Your task to perform on an android device: change alarm snooze length Image 0: 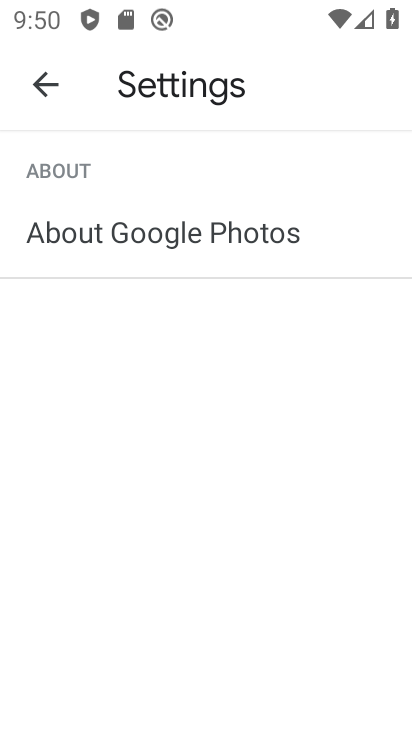
Step 0: press home button
Your task to perform on an android device: change alarm snooze length Image 1: 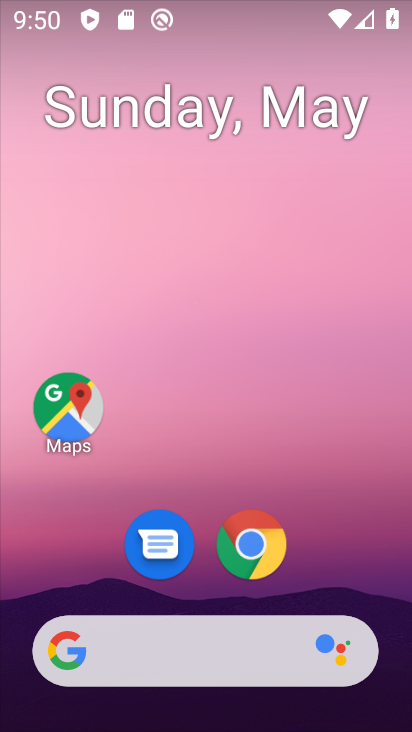
Step 1: drag from (300, 527) to (311, 287)
Your task to perform on an android device: change alarm snooze length Image 2: 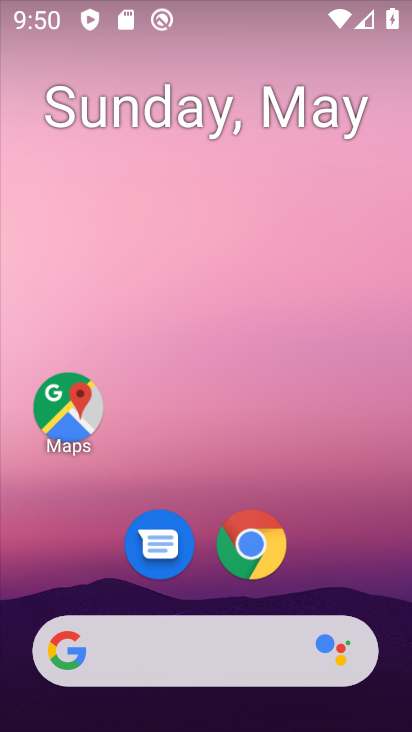
Step 2: drag from (313, 498) to (329, 291)
Your task to perform on an android device: change alarm snooze length Image 3: 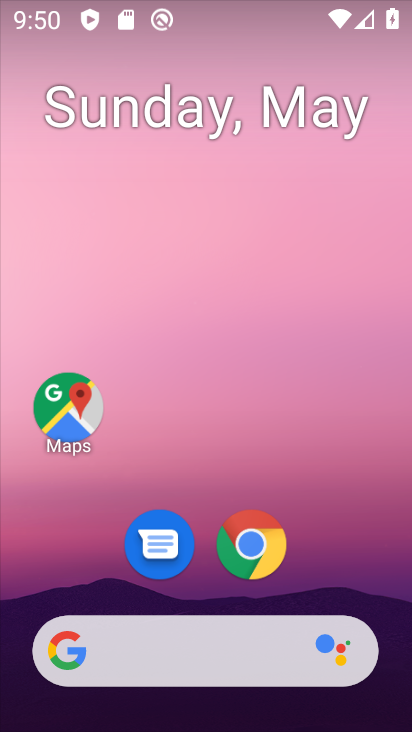
Step 3: drag from (303, 577) to (333, 310)
Your task to perform on an android device: change alarm snooze length Image 4: 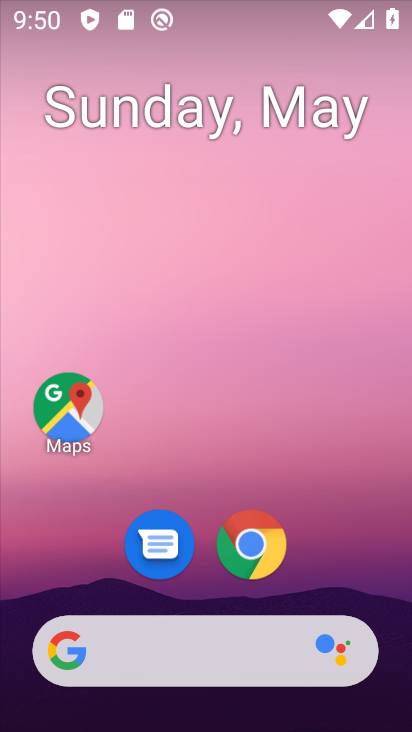
Step 4: drag from (303, 552) to (296, 221)
Your task to perform on an android device: change alarm snooze length Image 5: 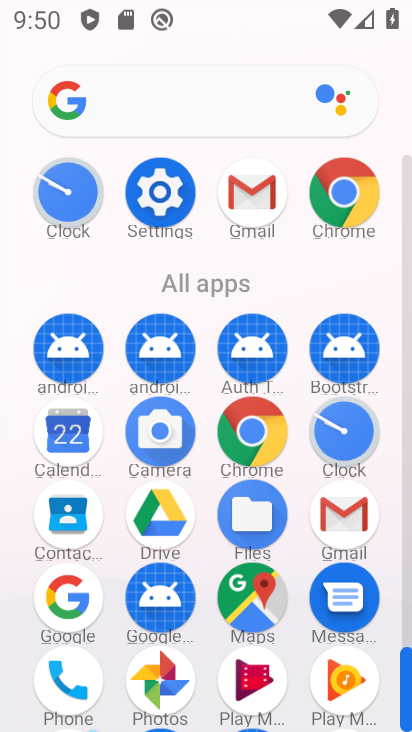
Step 5: click (261, 194)
Your task to perform on an android device: change alarm snooze length Image 6: 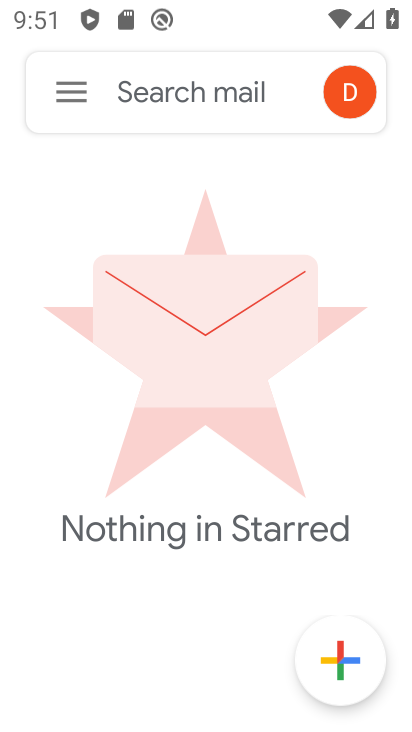
Step 6: press back button
Your task to perform on an android device: change alarm snooze length Image 7: 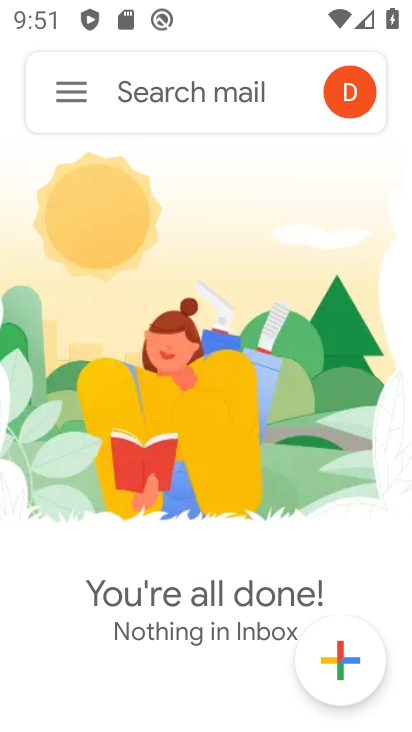
Step 7: press back button
Your task to perform on an android device: change alarm snooze length Image 8: 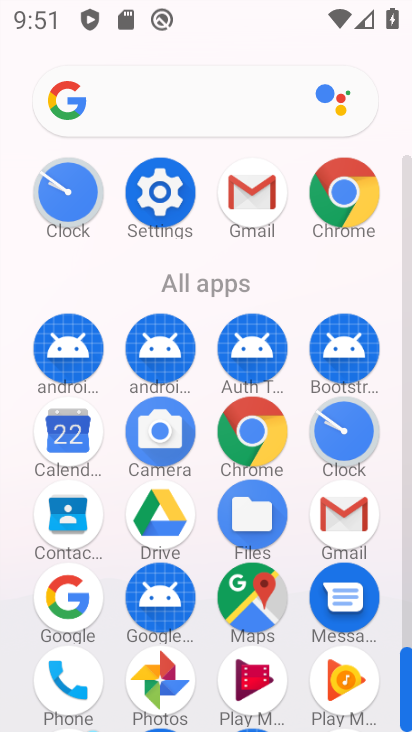
Step 8: click (348, 432)
Your task to perform on an android device: change alarm snooze length Image 9: 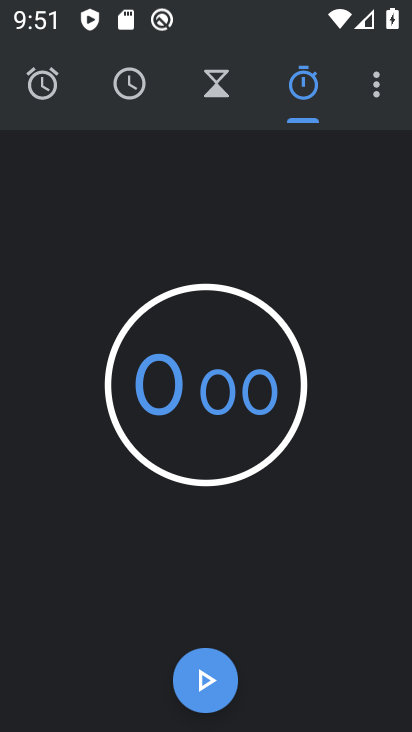
Step 9: click (356, 72)
Your task to perform on an android device: change alarm snooze length Image 10: 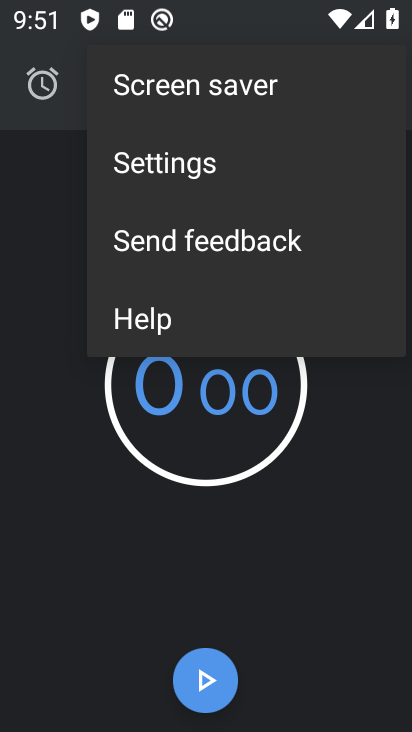
Step 10: click (204, 161)
Your task to perform on an android device: change alarm snooze length Image 11: 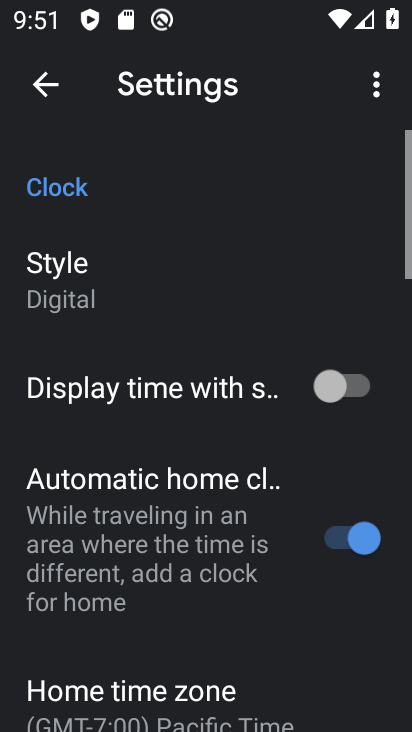
Step 11: drag from (141, 533) to (195, 179)
Your task to perform on an android device: change alarm snooze length Image 12: 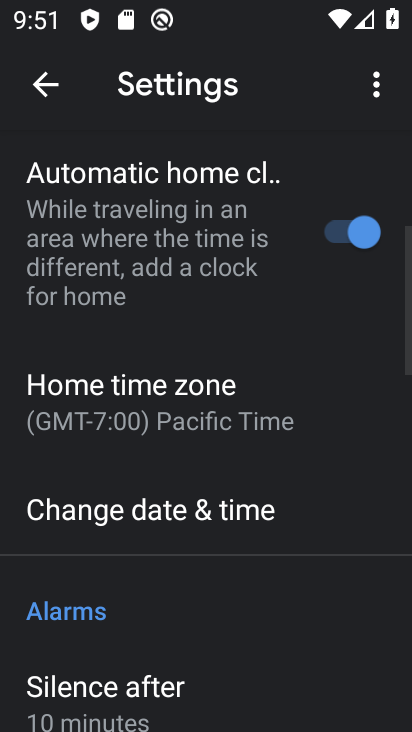
Step 12: drag from (107, 636) to (228, 149)
Your task to perform on an android device: change alarm snooze length Image 13: 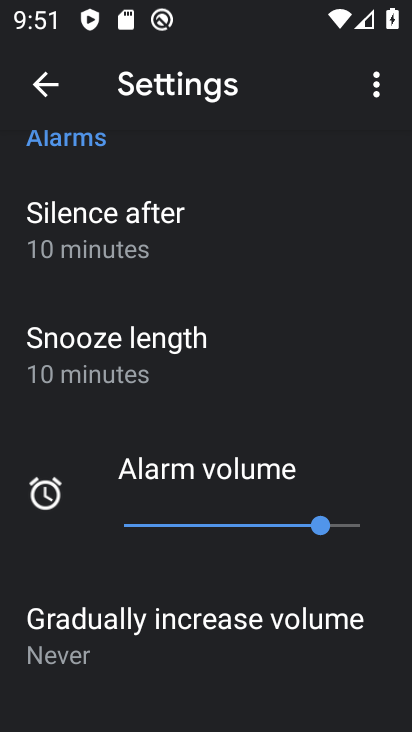
Step 13: click (172, 329)
Your task to perform on an android device: change alarm snooze length Image 14: 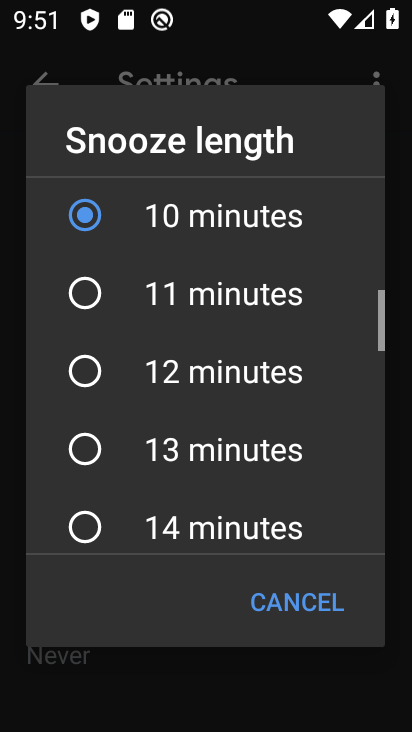
Step 14: click (181, 541)
Your task to perform on an android device: change alarm snooze length Image 15: 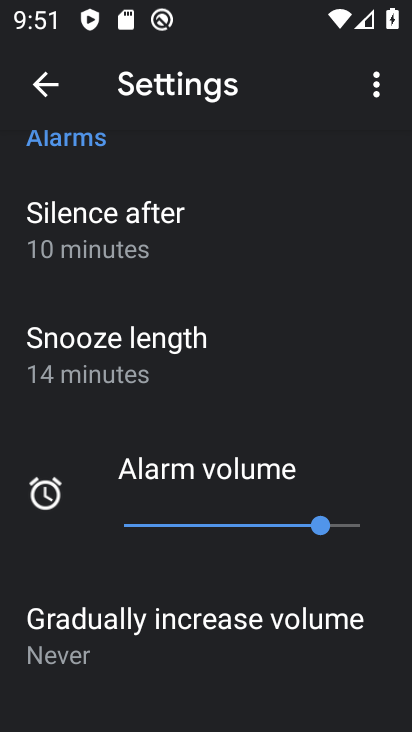
Step 15: task complete